Your task to perform on an android device: Go to battery settings Image 0: 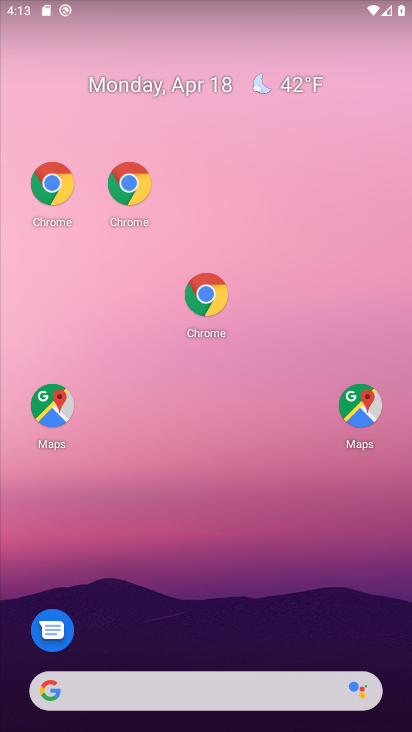
Step 0: click (228, 274)
Your task to perform on an android device: Go to battery settings Image 1: 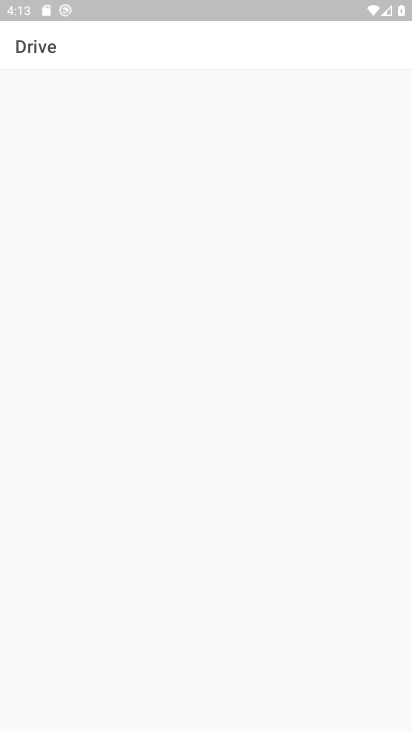
Step 1: drag from (256, 499) to (204, 136)
Your task to perform on an android device: Go to battery settings Image 2: 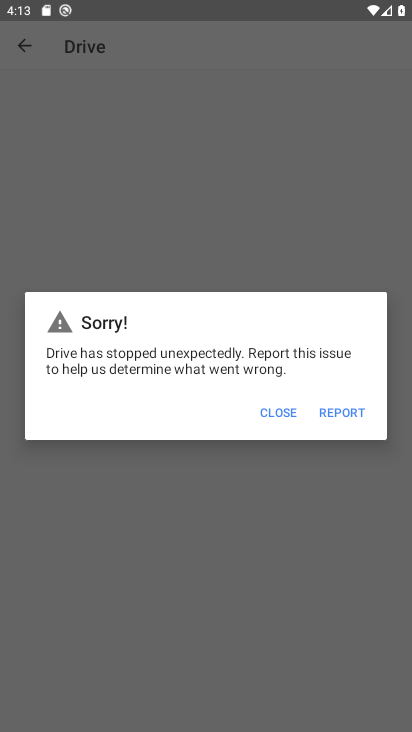
Step 2: click (341, 400)
Your task to perform on an android device: Go to battery settings Image 3: 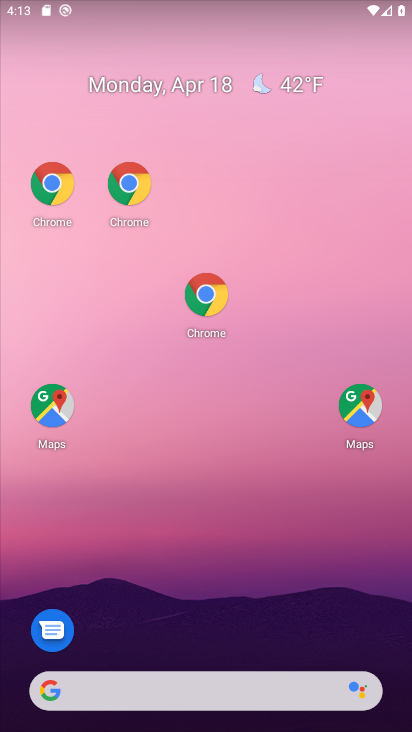
Step 3: drag from (211, 378) to (96, 36)
Your task to perform on an android device: Go to battery settings Image 4: 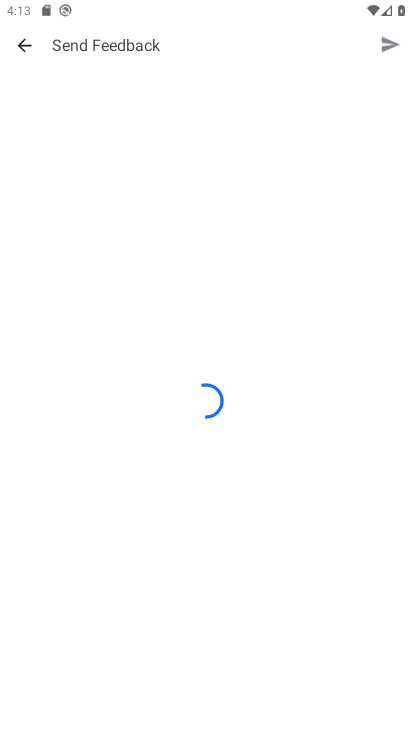
Step 4: click (15, 51)
Your task to perform on an android device: Go to battery settings Image 5: 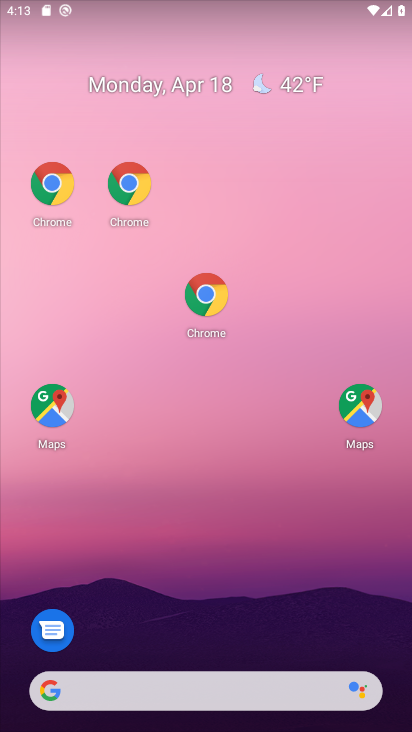
Step 5: drag from (288, 576) to (171, 130)
Your task to perform on an android device: Go to battery settings Image 6: 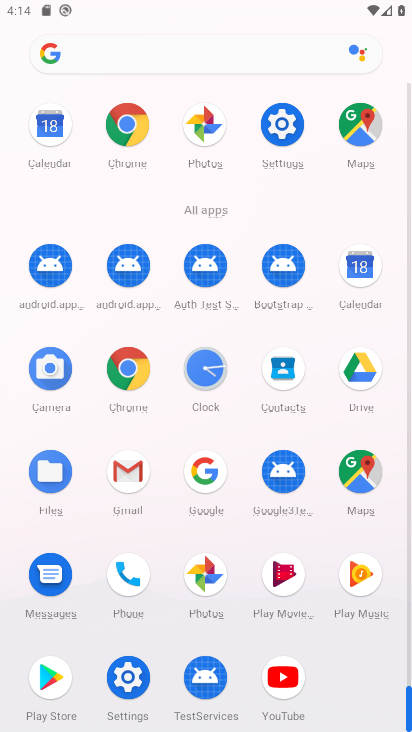
Step 6: click (287, 123)
Your task to perform on an android device: Go to battery settings Image 7: 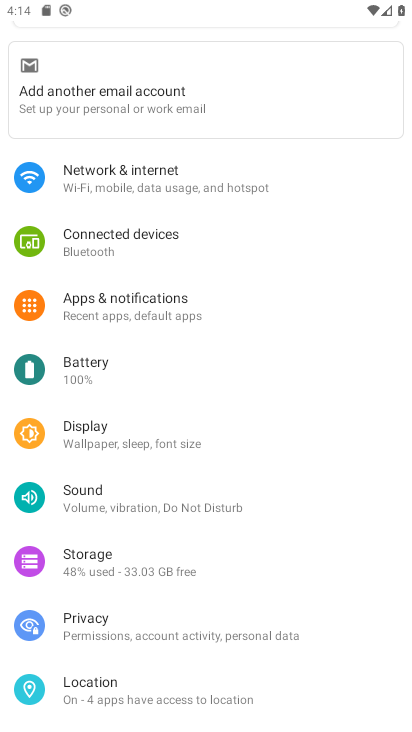
Step 7: click (69, 362)
Your task to perform on an android device: Go to battery settings Image 8: 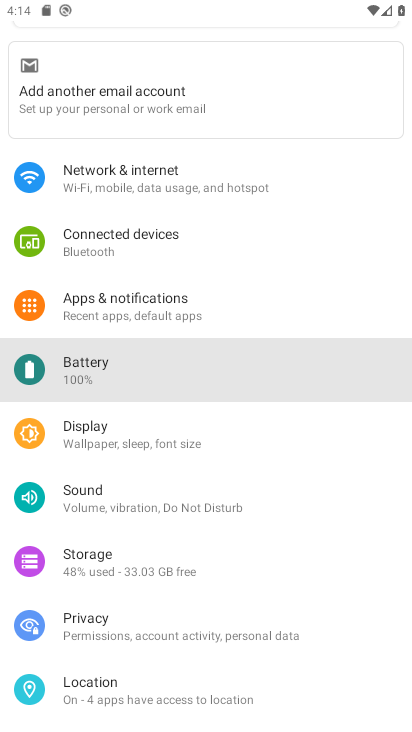
Step 8: click (69, 362)
Your task to perform on an android device: Go to battery settings Image 9: 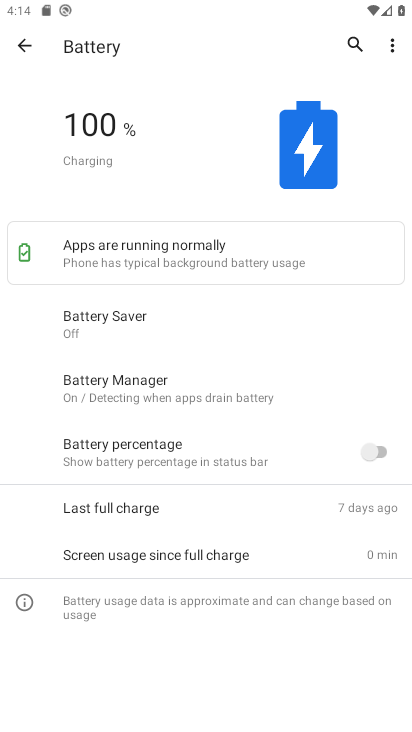
Step 9: task complete